Your task to perform on an android device: turn on notifications settings in the gmail app Image 0: 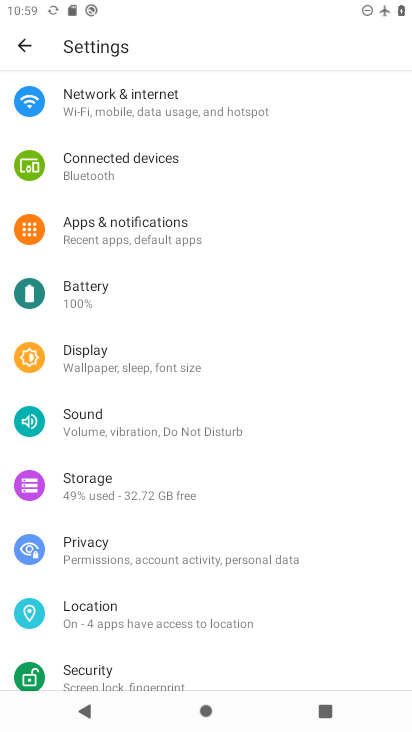
Step 0: press home button
Your task to perform on an android device: turn on notifications settings in the gmail app Image 1: 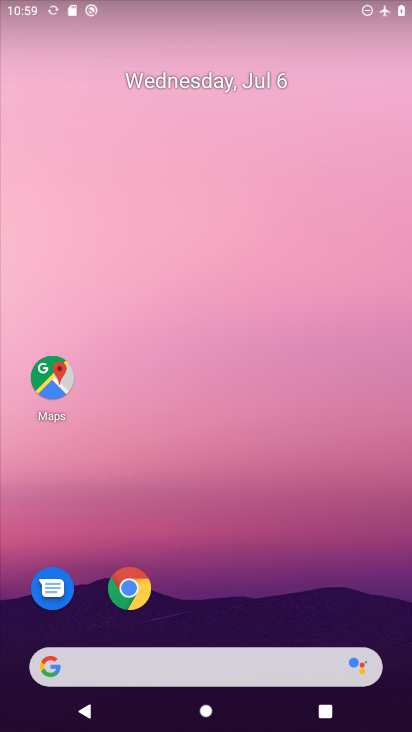
Step 1: drag from (261, 616) to (206, 209)
Your task to perform on an android device: turn on notifications settings in the gmail app Image 2: 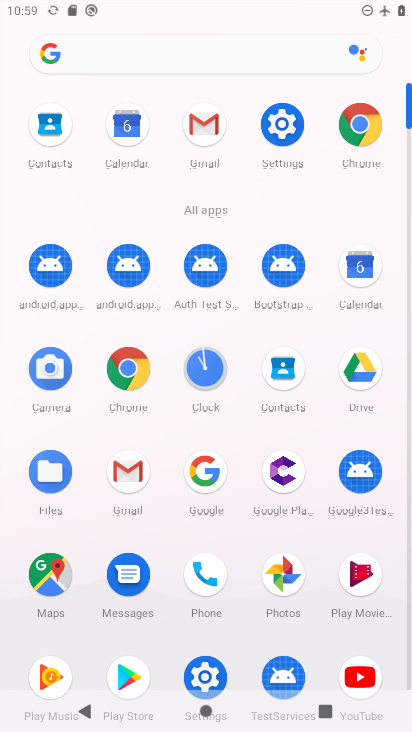
Step 2: click (195, 127)
Your task to perform on an android device: turn on notifications settings in the gmail app Image 3: 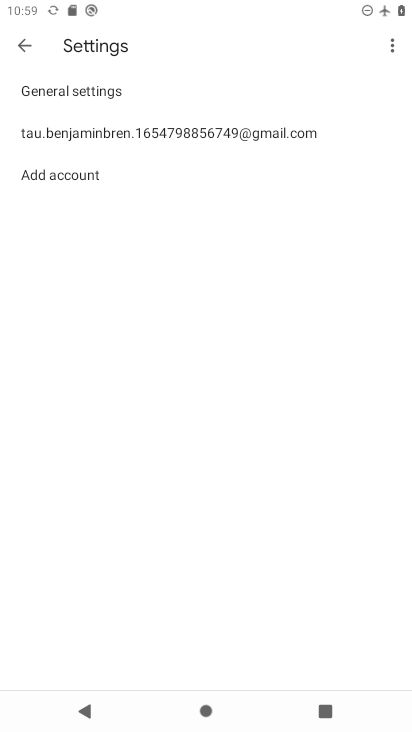
Step 3: click (195, 127)
Your task to perform on an android device: turn on notifications settings in the gmail app Image 4: 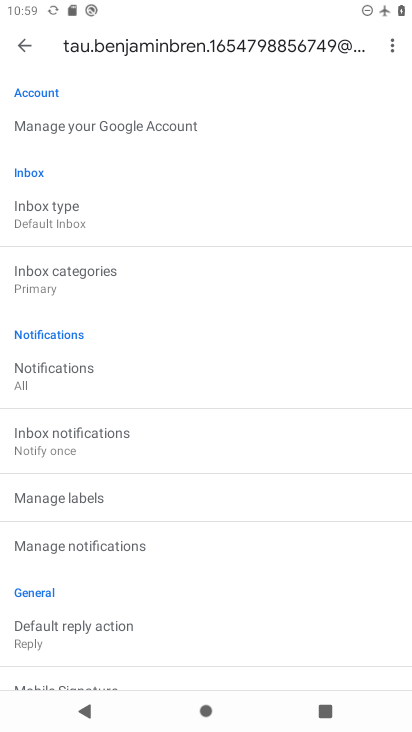
Step 4: click (156, 556)
Your task to perform on an android device: turn on notifications settings in the gmail app Image 5: 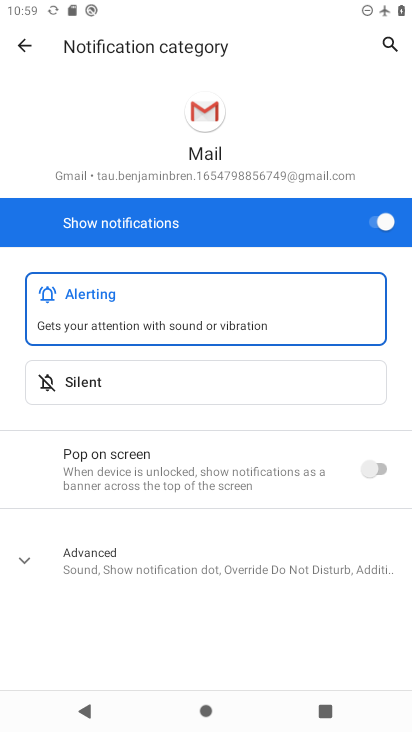
Step 5: click (368, 476)
Your task to perform on an android device: turn on notifications settings in the gmail app Image 6: 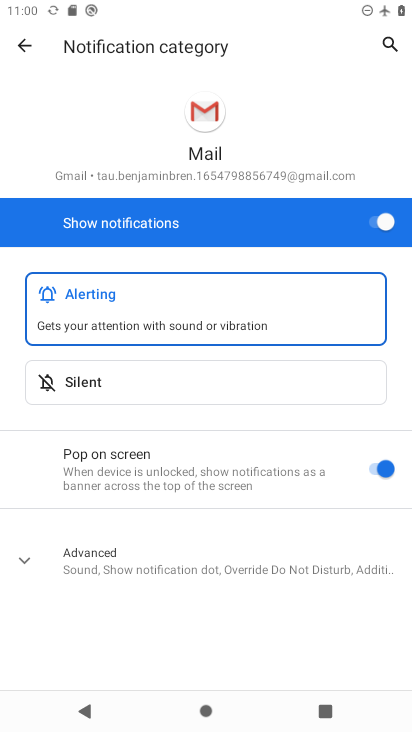
Step 6: drag from (353, 537) to (313, 197)
Your task to perform on an android device: turn on notifications settings in the gmail app Image 7: 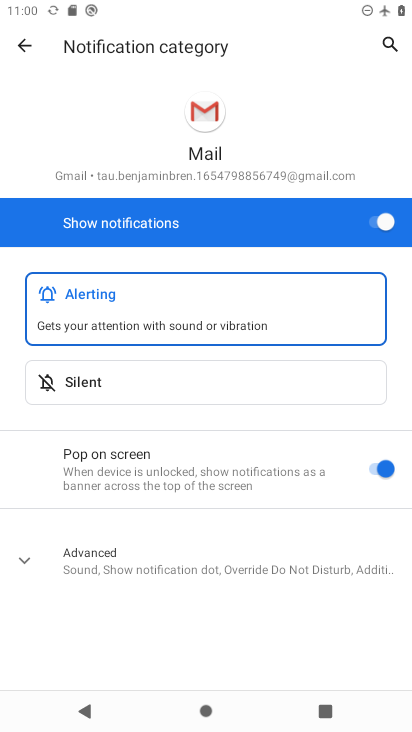
Step 7: click (291, 552)
Your task to perform on an android device: turn on notifications settings in the gmail app Image 8: 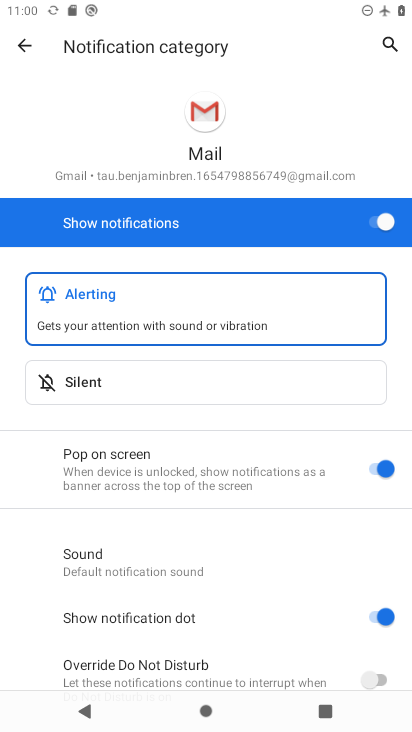
Step 8: click (379, 678)
Your task to perform on an android device: turn on notifications settings in the gmail app Image 9: 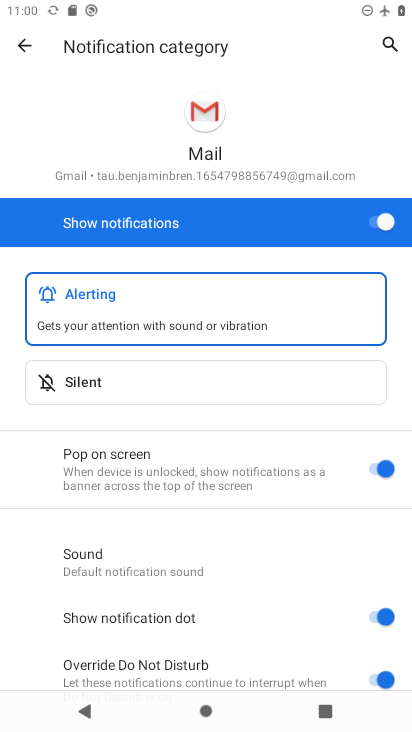
Step 9: task complete